Your task to perform on an android device: visit the assistant section in the google photos Image 0: 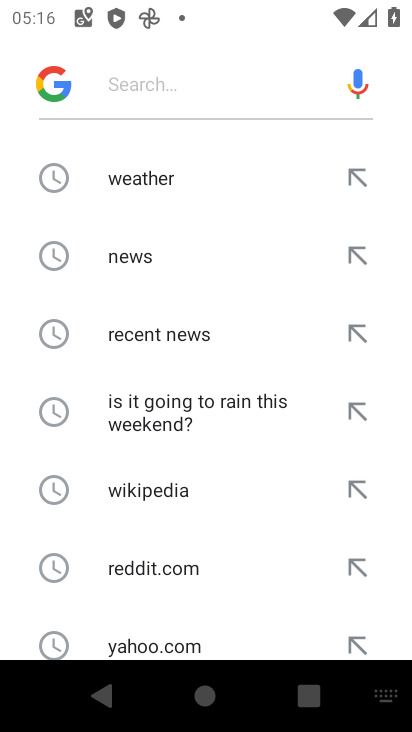
Step 0: press back button
Your task to perform on an android device: visit the assistant section in the google photos Image 1: 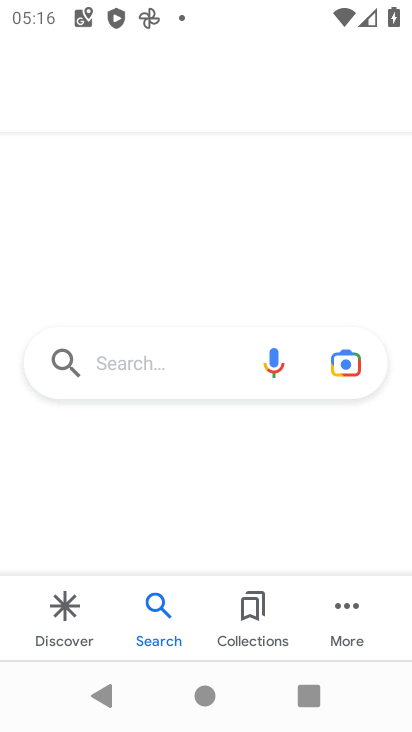
Step 1: press back button
Your task to perform on an android device: visit the assistant section in the google photos Image 2: 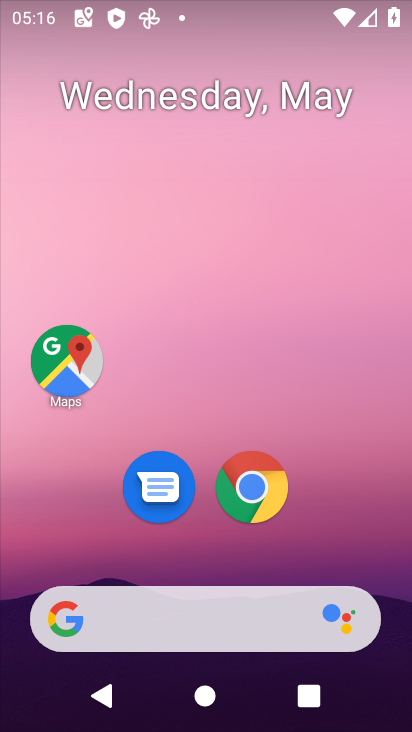
Step 2: drag from (357, 512) to (315, 73)
Your task to perform on an android device: visit the assistant section in the google photos Image 3: 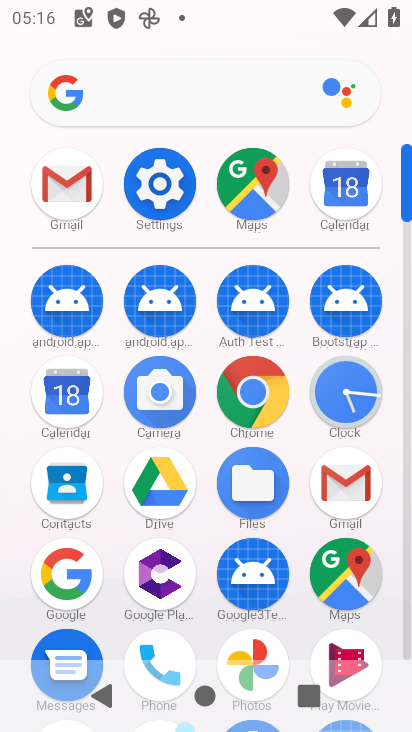
Step 3: click (240, 654)
Your task to perform on an android device: visit the assistant section in the google photos Image 4: 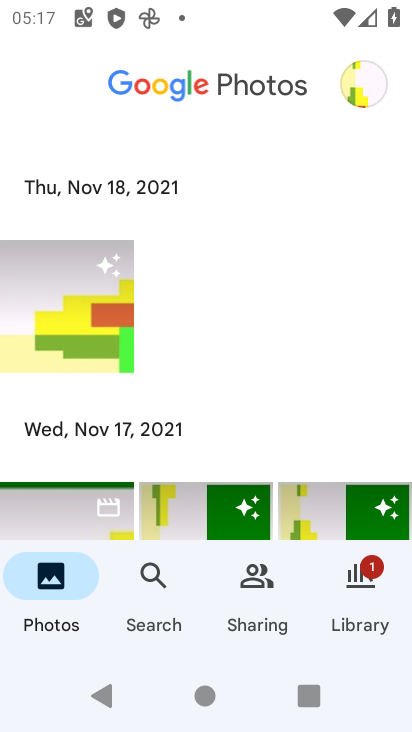
Step 4: click (371, 606)
Your task to perform on an android device: visit the assistant section in the google photos Image 5: 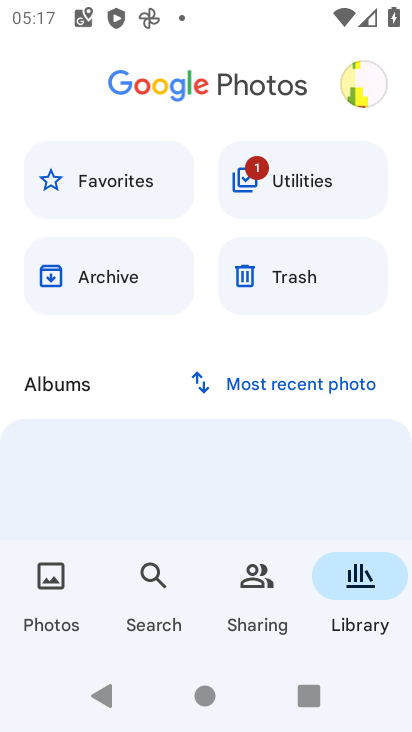
Step 5: click (277, 192)
Your task to perform on an android device: visit the assistant section in the google photos Image 6: 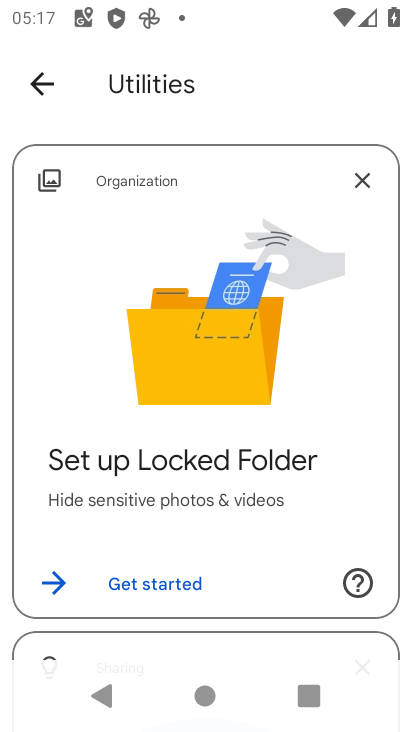
Step 6: task complete